Your task to perform on an android device: What is the news today? Image 0: 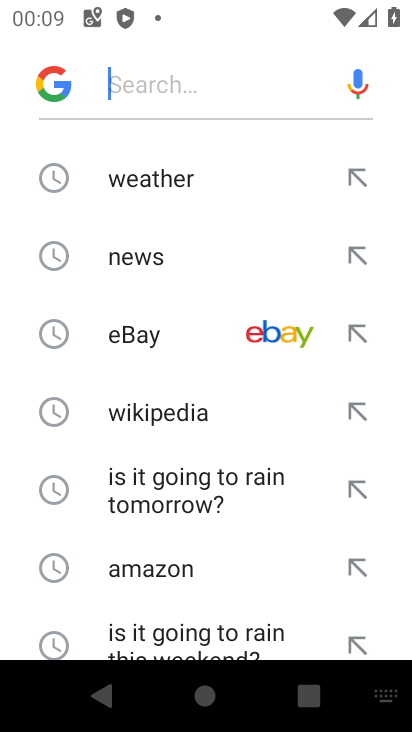
Step 0: press home button
Your task to perform on an android device: What is the news today? Image 1: 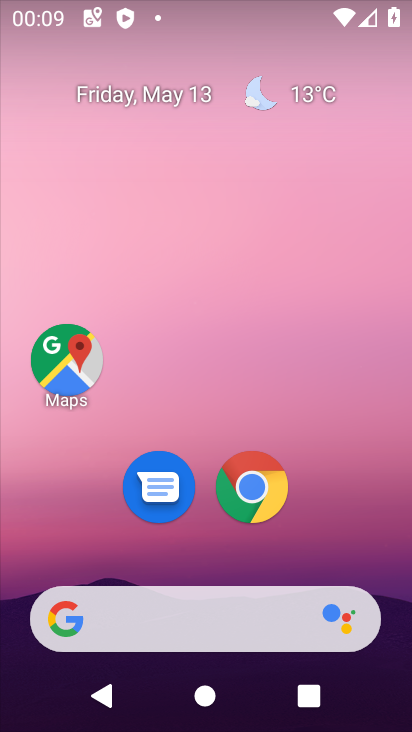
Step 1: click (162, 618)
Your task to perform on an android device: What is the news today? Image 2: 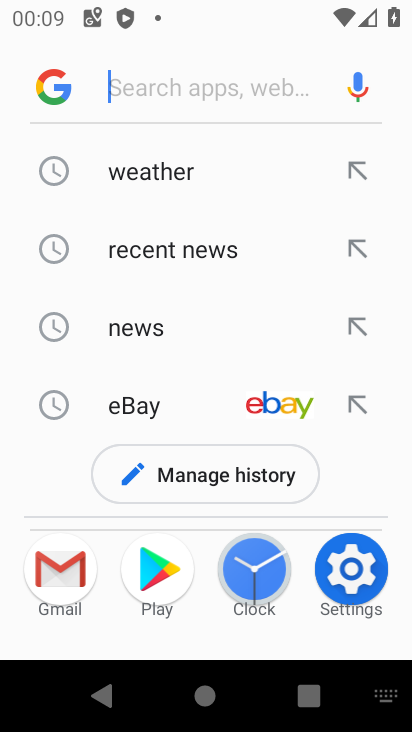
Step 2: click (196, 263)
Your task to perform on an android device: What is the news today? Image 3: 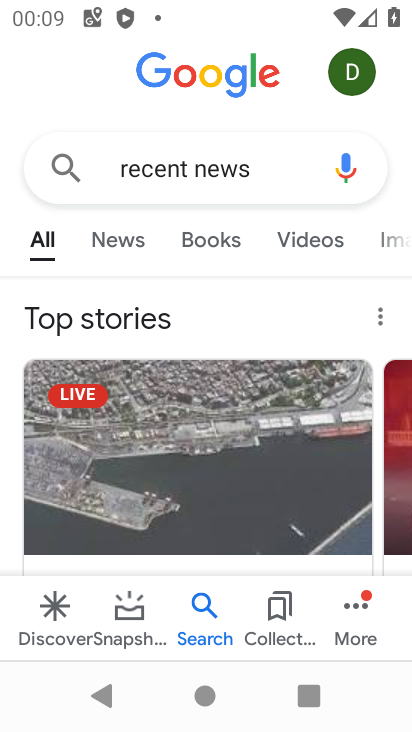
Step 3: task complete